Your task to perform on an android device: Open Google Maps Image 0: 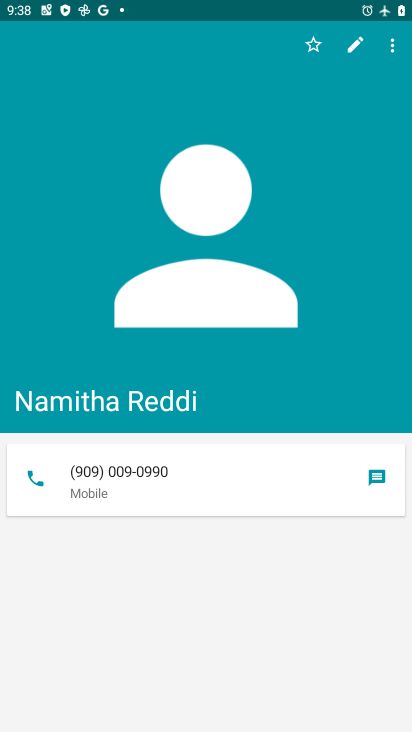
Step 0: press home button
Your task to perform on an android device: Open Google Maps Image 1: 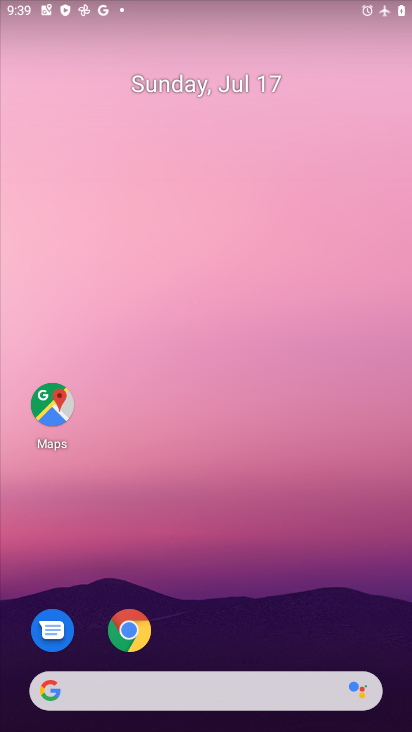
Step 1: click (49, 397)
Your task to perform on an android device: Open Google Maps Image 2: 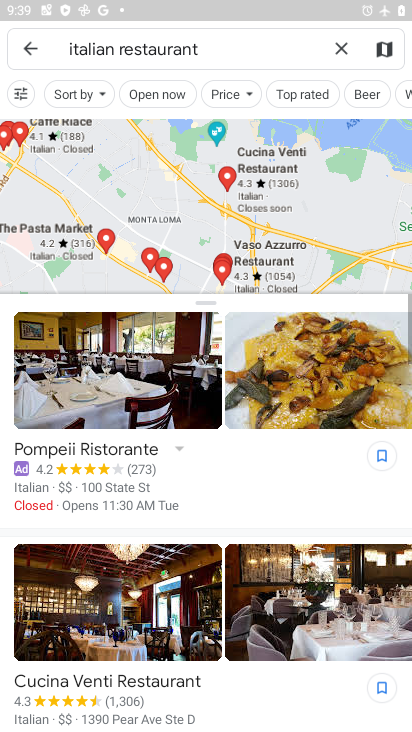
Step 2: task complete